Your task to perform on an android device: Open the map Image 0: 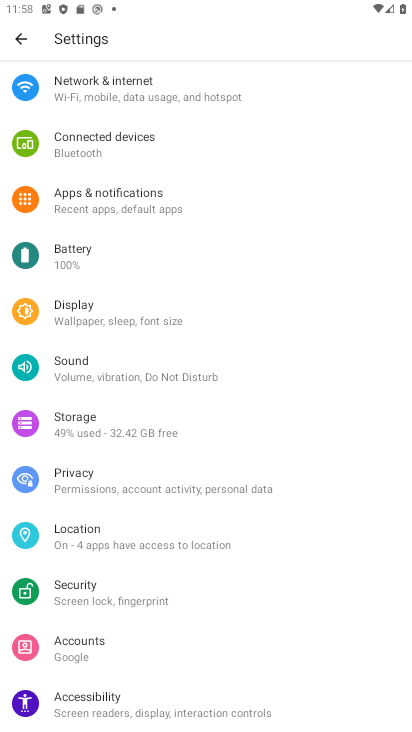
Step 0: press home button
Your task to perform on an android device: Open the map Image 1: 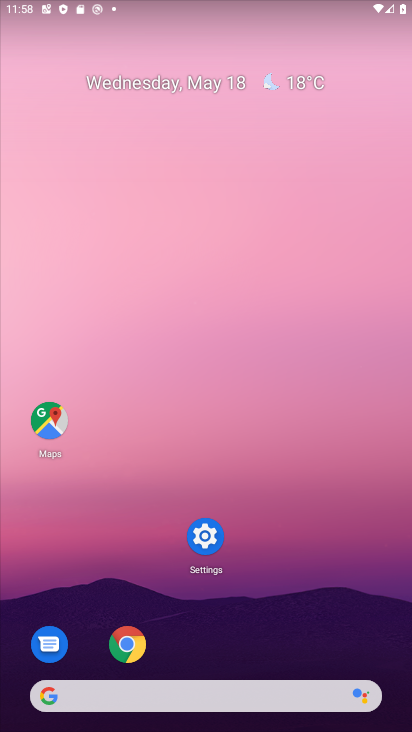
Step 1: click (38, 425)
Your task to perform on an android device: Open the map Image 2: 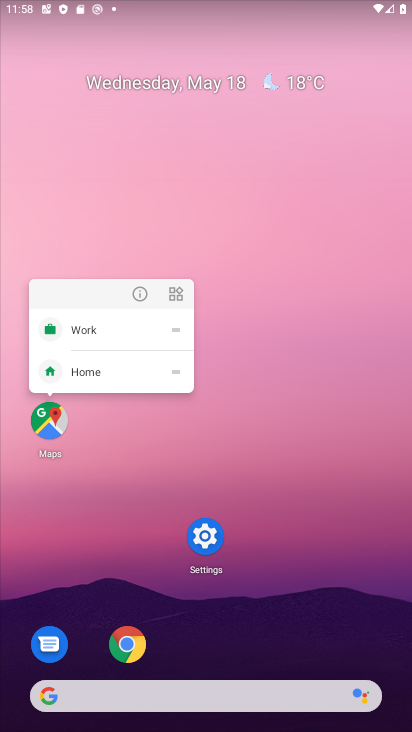
Step 2: click (45, 421)
Your task to perform on an android device: Open the map Image 3: 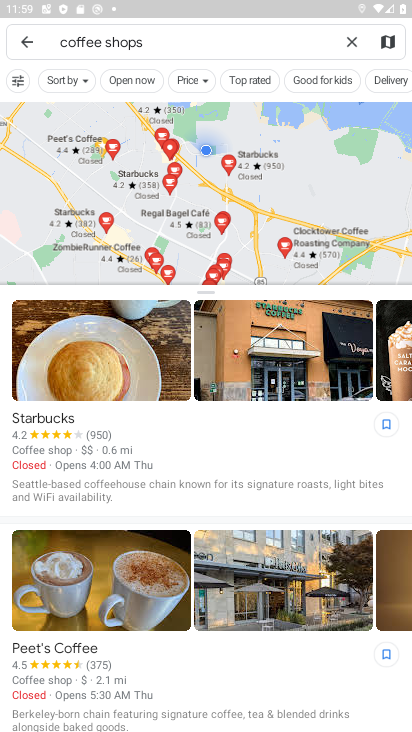
Step 3: task complete